Your task to perform on an android device: toggle notifications settings in the gmail app Image 0: 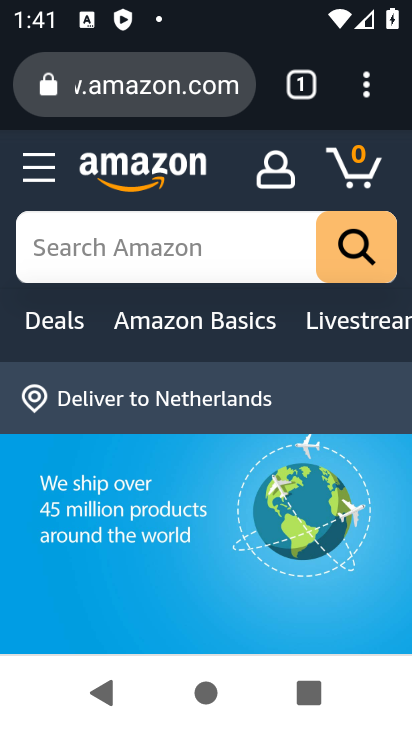
Step 0: press home button
Your task to perform on an android device: toggle notifications settings in the gmail app Image 1: 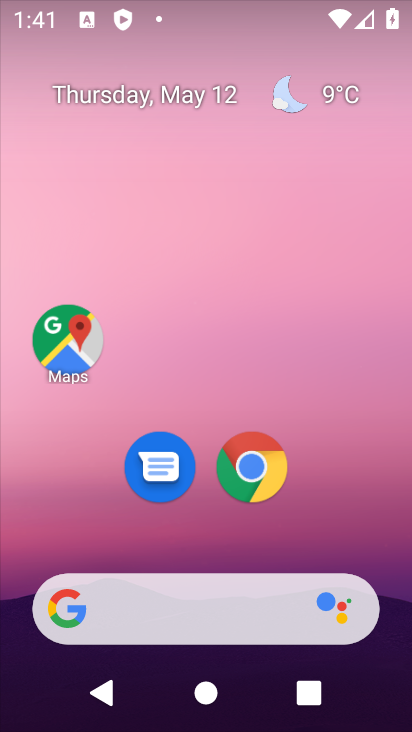
Step 1: drag from (288, 551) to (319, 275)
Your task to perform on an android device: toggle notifications settings in the gmail app Image 2: 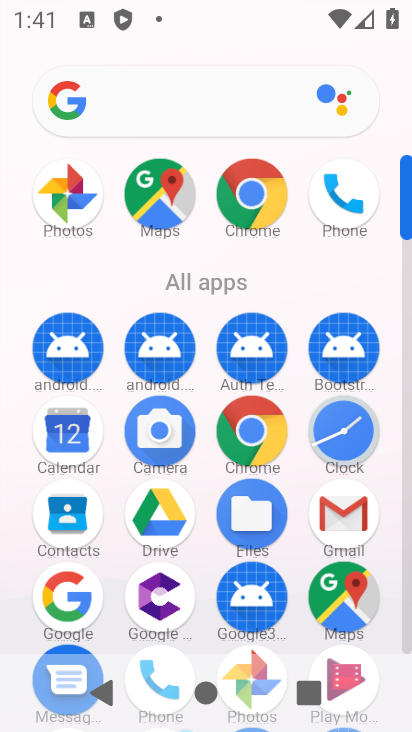
Step 2: click (350, 514)
Your task to perform on an android device: toggle notifications settings in the gmail app Image 3: 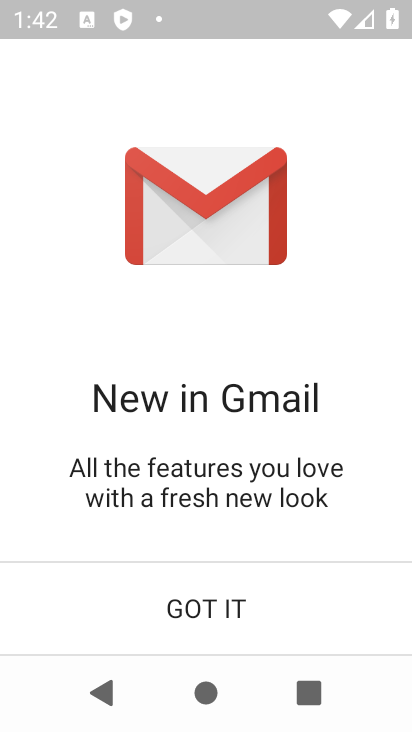
Step 3: click (231, 609)
Your task to perform on an android device: toggle notifications settings in the gmail app Image 4: 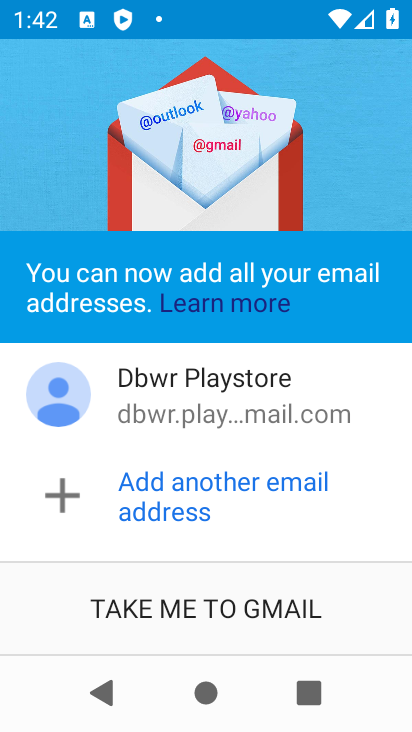
Step 4: click (230, 607)
Your task to perform on an android device: toggle notifications settings in the gmail app Image 5: 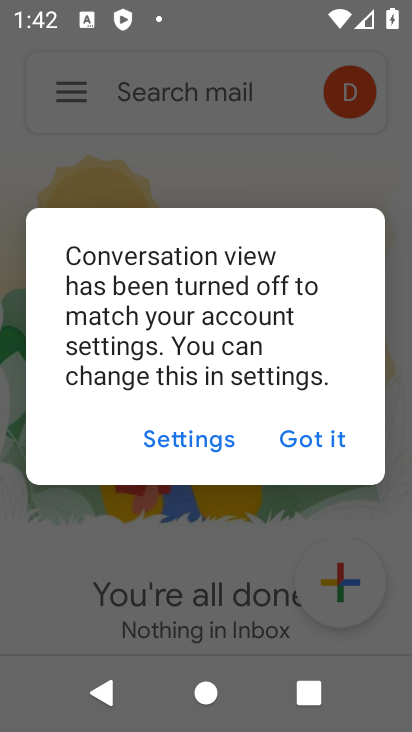
Step 5: click (304, 430)
Your task to perform on an android device: toggle notifications settings in the gmail app Image 6: 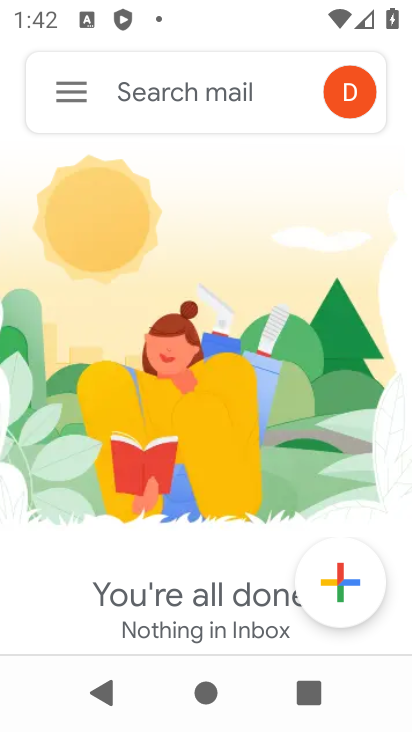
Step 6: click (79, 88)
Your task to perform on an android device: toggle notifications settings in the gmail app Image 7: 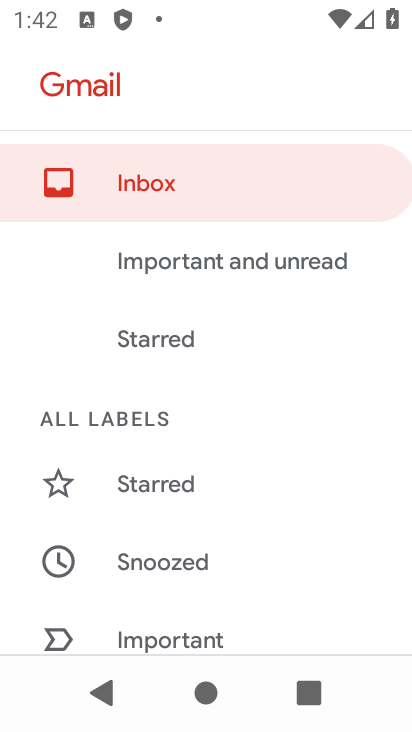
Step 7: drag from (234, 592) to (269, 274)
Your task to perform on an android device: toggle notifications settings in the gmail app Image 8: 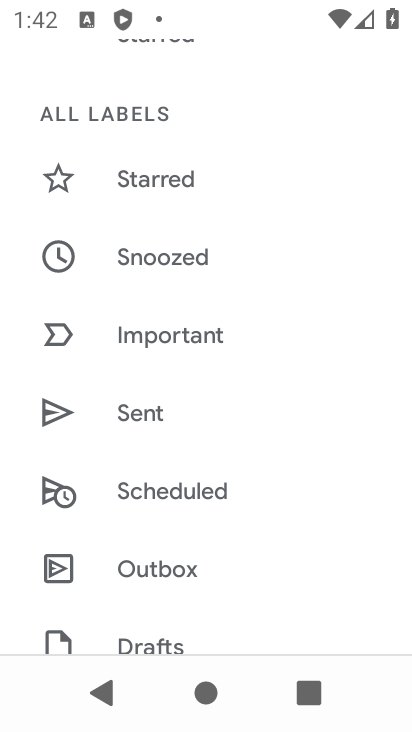
Step 8: drag from (234, 605) to (299, 248)
Your task to perform on an android device: toggle notifications settings in the gmail app Image 9: 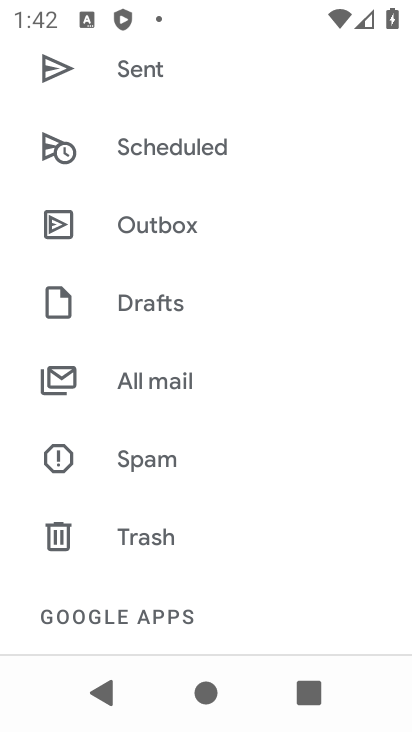
Step 9: drag from (213, 621) to (289, 205)
Your task to perform on an android device: toggle notifications settings in the gmail app Image 10: 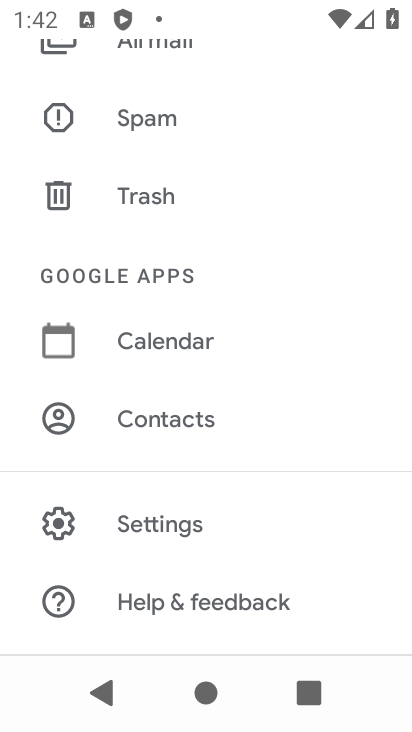
Step 10: click (158, 513)
Your task to perform on an android device: toggle notifications settings in the gmail app Image 11: 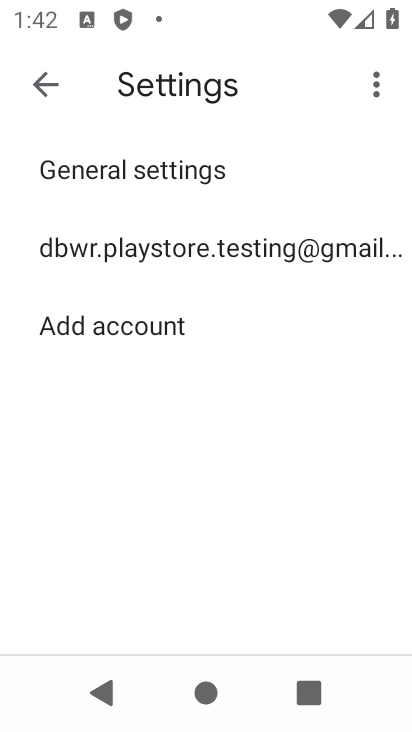
Step 11: click (138, 236)
Your task to perform on an android device: toggle notifications settings in the gmail app Image 12: 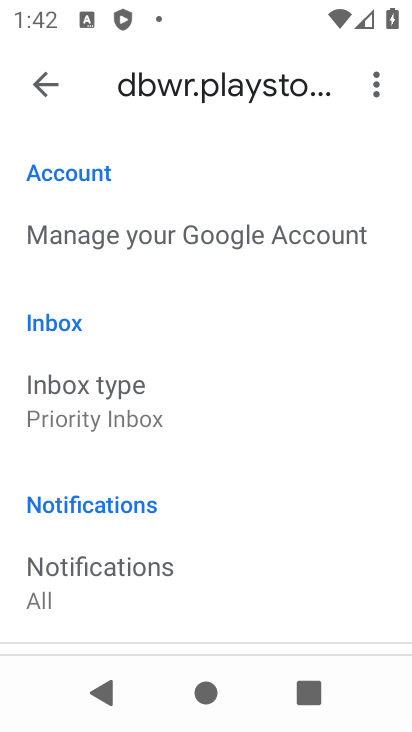
Step 12: click (125, 590)
Your task to perform on an android device: toggle notifications settings in the gmail app Image 13: 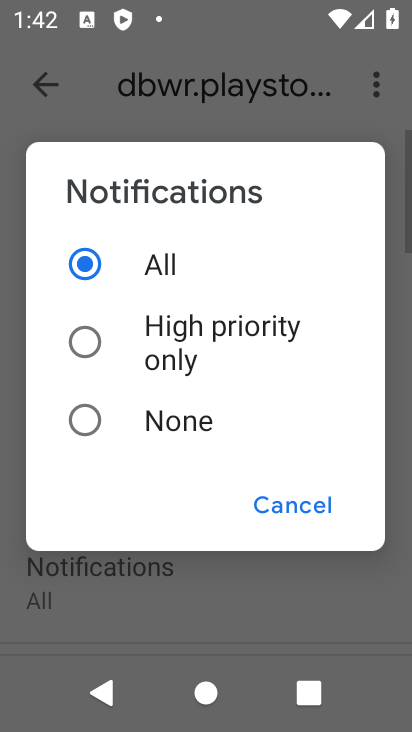
Step 13: click (142, 411)
Your task to perform on an android device: toggle notifications settings in the gmail app Image 14: 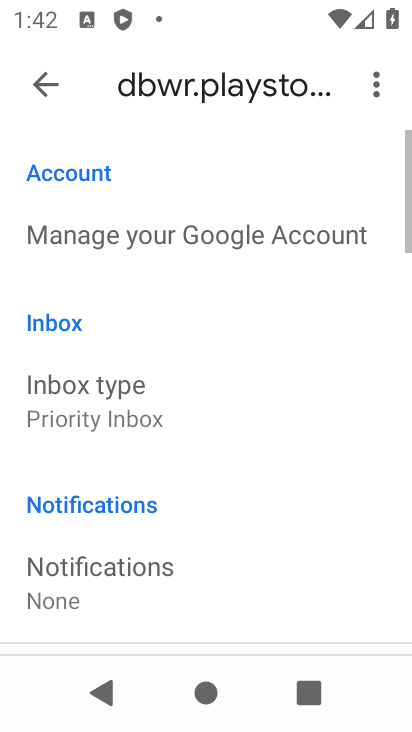
Step 14: task complete